Your task to perform on an android device: Open settings Image 0: 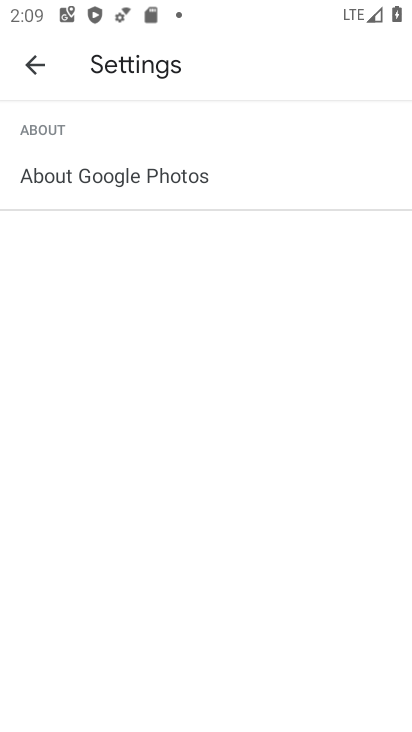
Step 0: press home button
Your task to perform on an android device: Open settings Image 1: 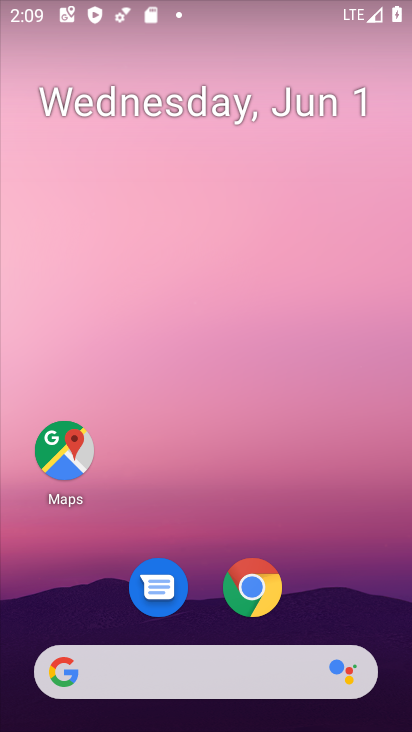
Step 1: drag from (209, 651) to (152, 26)
Your task to perform on an android device: Open settings Image 2: 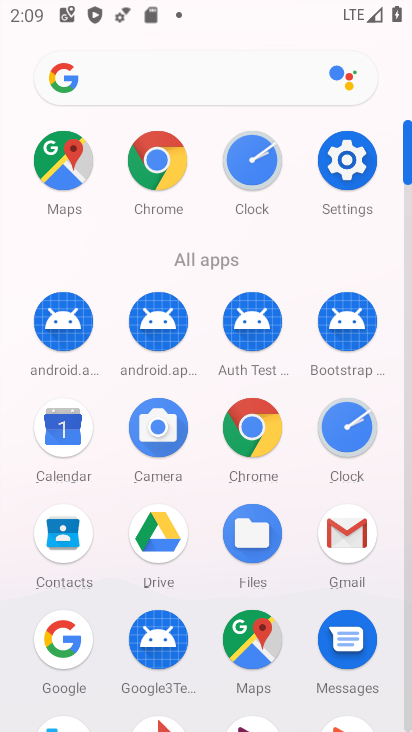
Step 2: click (372, 167)
Your task to perform on an android device: Open settings Image 3: 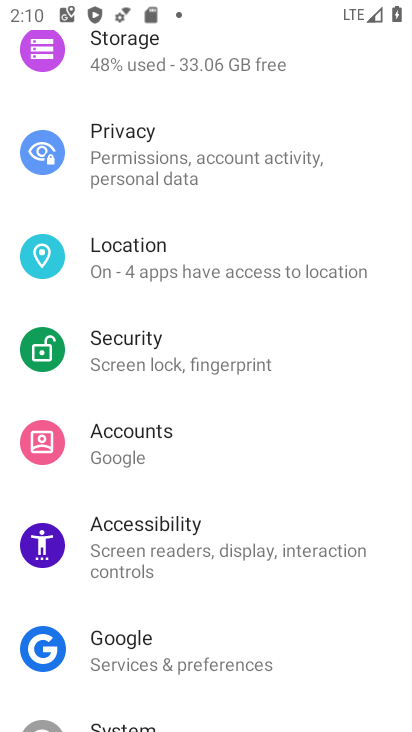
Step 3: task complete